Your task to perform on an android device: read, delete, or share a saved page in the chrome app Image 0: 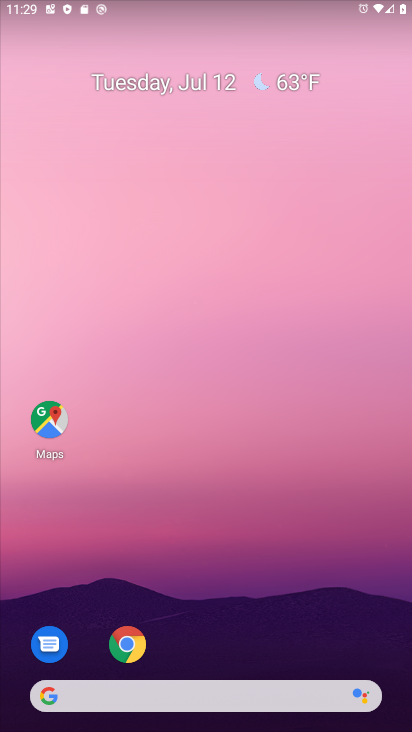
Step 0: click (128, 648)
Your task to perform on an android device: read, delete, or share a saved page in the chrome app Image 1: 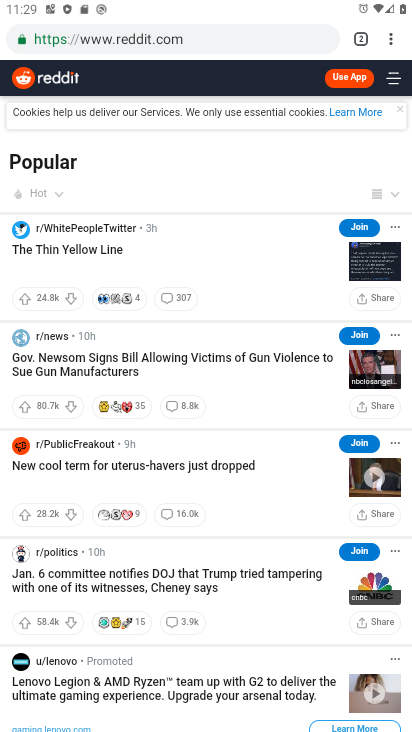
Step 1: click (389, 38)
Your task to perform on an android device: read, delete, or share a saved page in the chrome app Image 2: 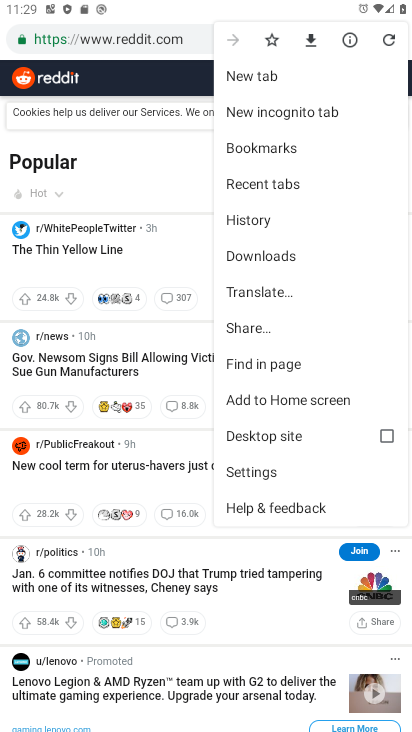
Step 2: click (267, 255)
Your task to perform on an android device: read, delete, or share a saved page in the chrome app Image 3: 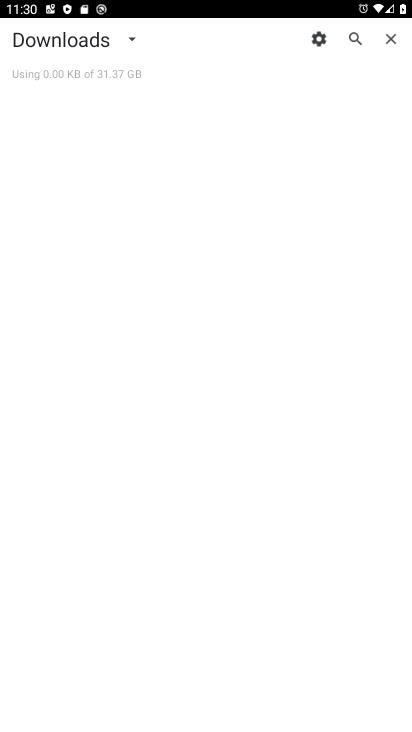
Step 3: click (129, 38)
Your task to perform on an android device: read, delete, or share a saved page in the chrome app Image 4: 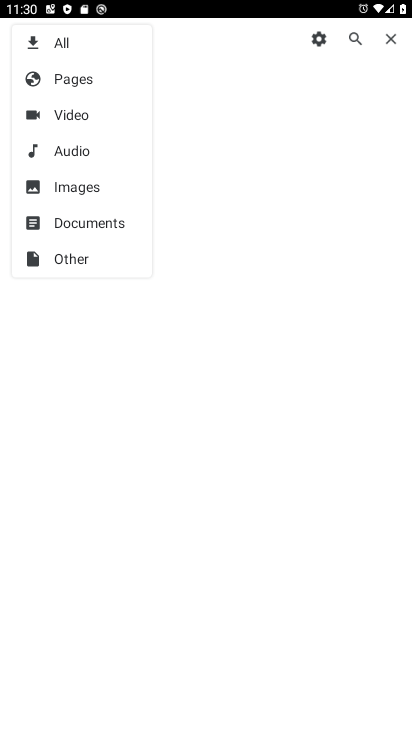
Step 4: click (96, 86)
Your task to perform on an android device: read, delete, or share a saved page in the chrome app Image 5: 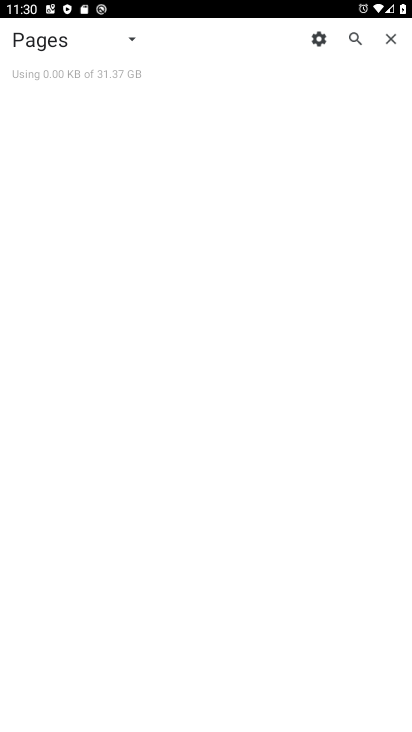
Step 5: click (128, 37)
Your task to perform on an android device: read, delete, or share a saved page in the chrome app Image 6: 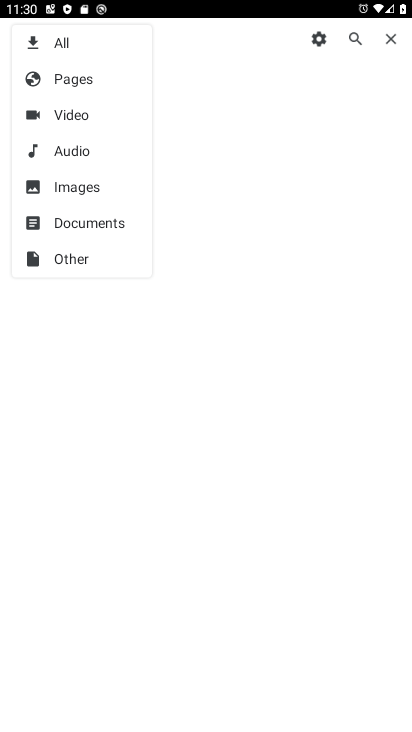
Step 6: click (76, 107)
Your task to perform on an android device: read, delete, or share a saved page in the chrome app Image 7: 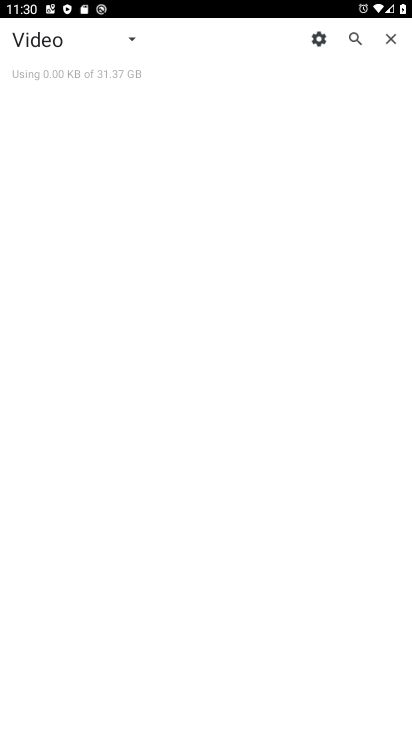
Step 7: click (131, 39)
Your task to perform on an android device: read, delete, or share a saved page in the chrome app Image 8: 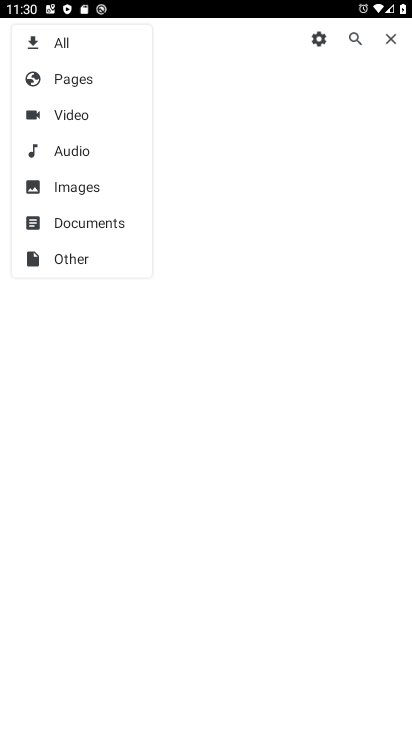
Step 8: click (71, 146)
Your task to perform on an android device: read, delete, or share a saved page in the chrome app Image 9: 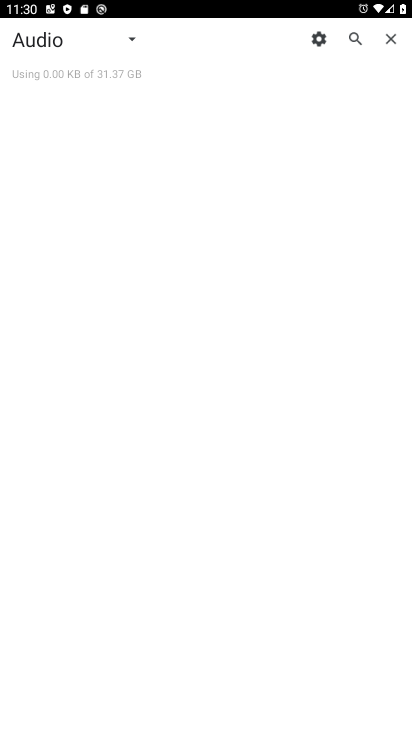
Step 9: click (127, 32)
Your task to perform on an android device: read, delete, or share a saved page in the chrome app Image 10: 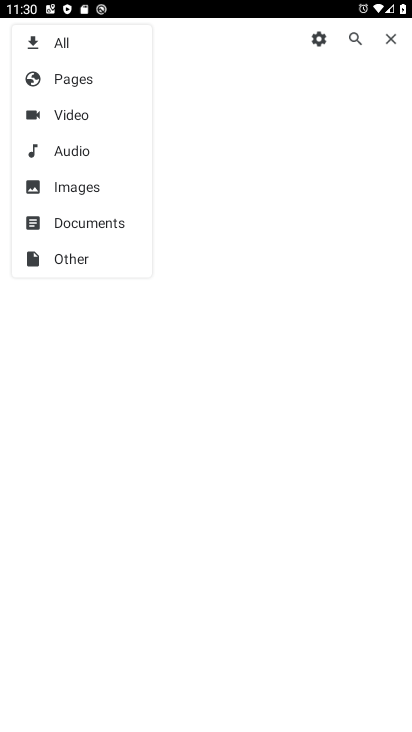
Step 10: click (75, 193)
Your task to perform on an android device: read, delete, or share a saved page in the chrome app Image 11: 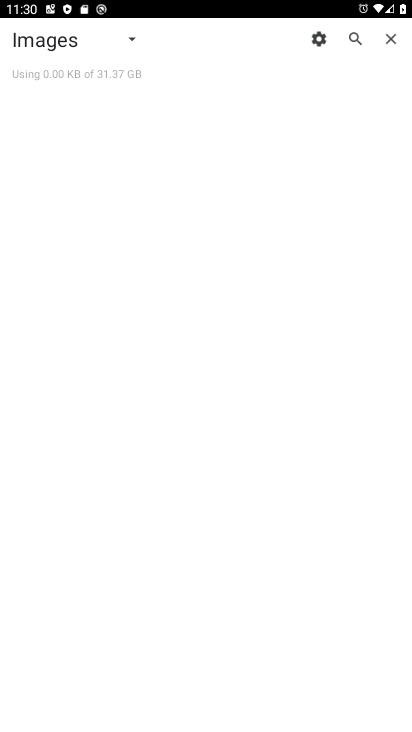
Step 11: click (126, 38)
Your task to perform on an android device: read, delete, or share a saved page in the chrome app Image 12: 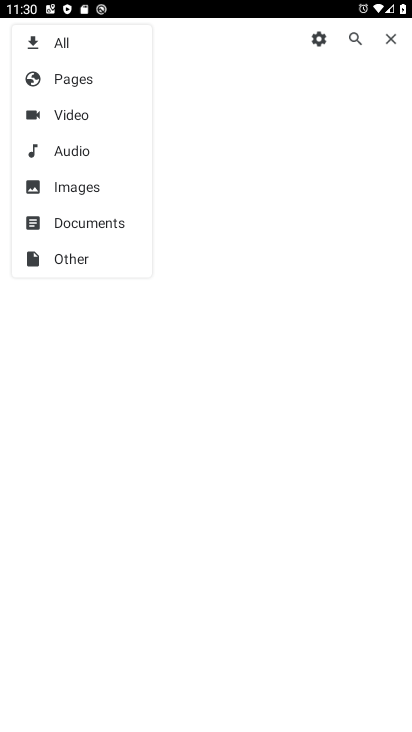
Step 12: click (65, 217)
Your task to perform on an android device: read, delete, or share a saved page in the chrome app Image 13: 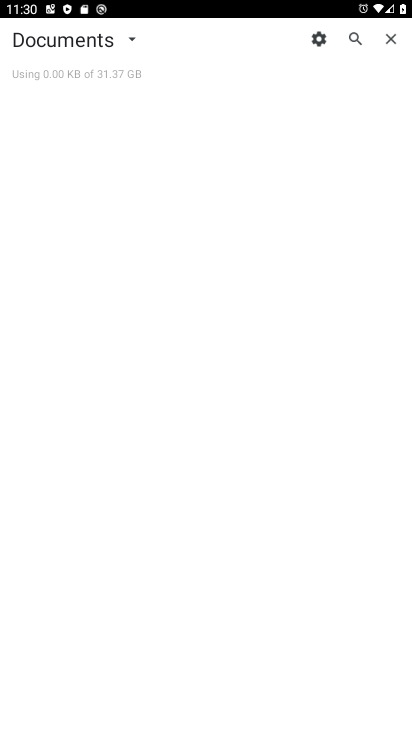
Step 13: click (132, 38)
Your task to perform on an android device: read, delete, or share a saved page in the chrome app Image 14: 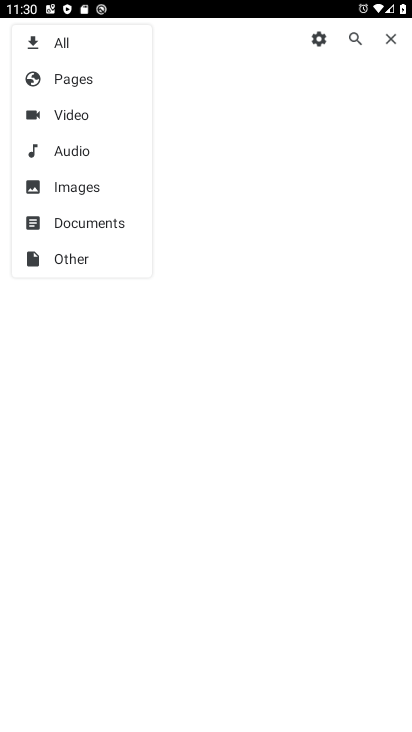
Step 14: click (60, 253)
Your task to perform on an android device: read, delete, or share a saved page in the chrome app Image 15: 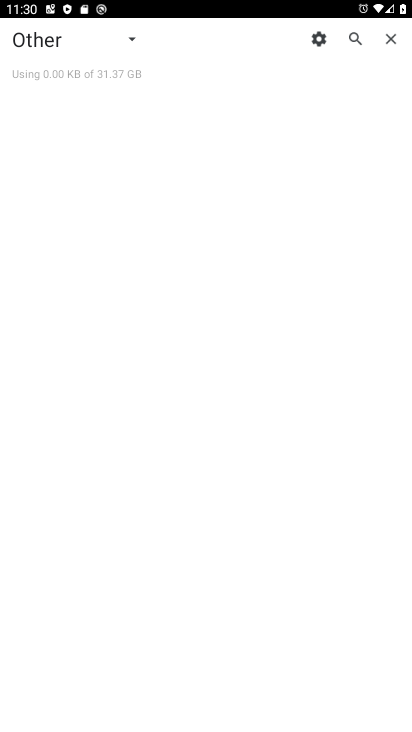
Step 15: task complete